Your task to perform on an android device: Go to Yahoo.com Image 0: 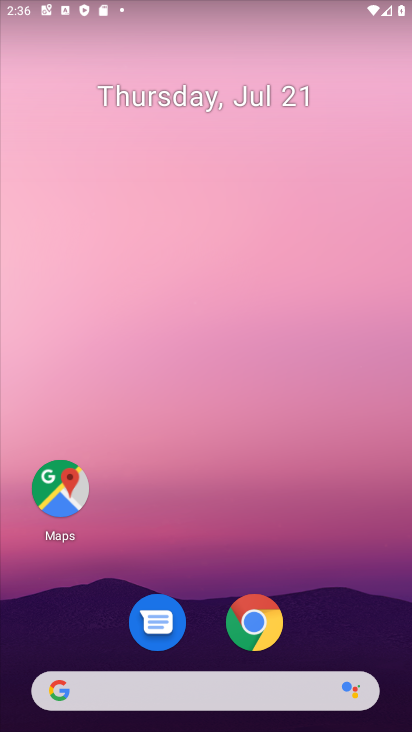
Step 0: click (244, 616)
Your task to perform on an android device: Go to Yahoo.com Image 1: 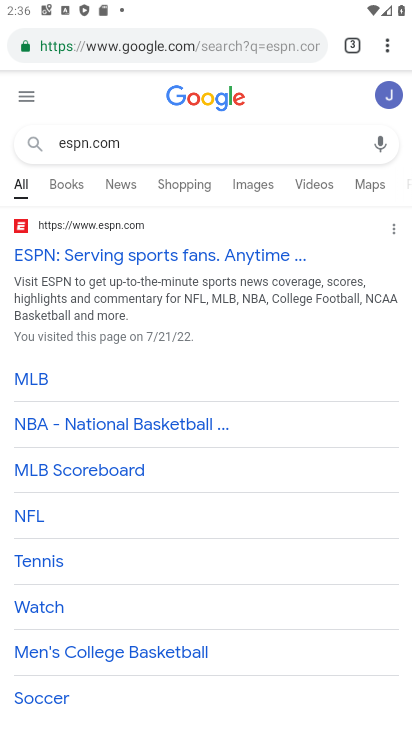
Step 1: click (227, 58)
Your task to perform on an android device: Go to Yahoo.com Image 2: 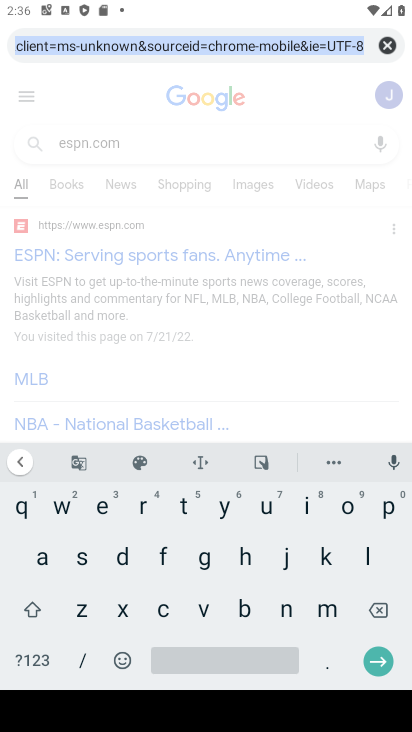
Step 2: click (386, 49)
Your task to perform on an android device: Go to Yahoo.com Image 3: 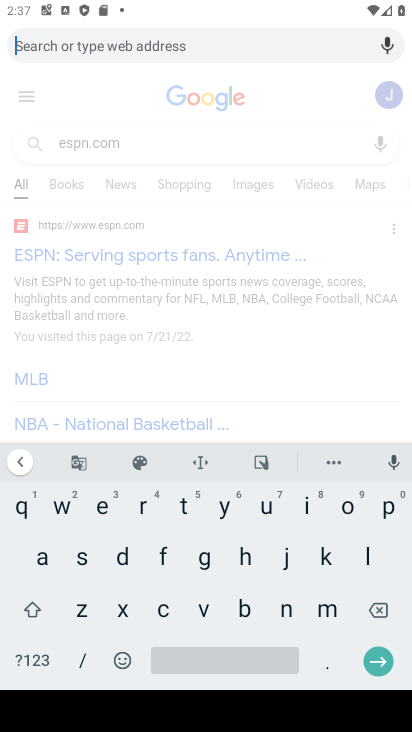
Step 3: click (226, 509)
Your task to perform on an android device: Go to Yahoo.com Image 4: 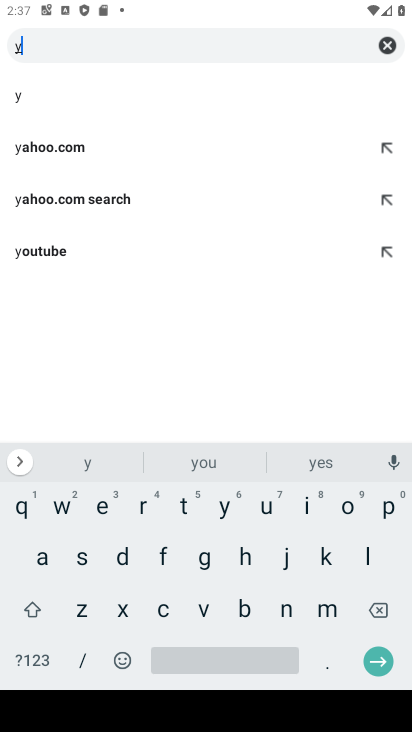
Step 4: click (92, 137)
Your task to perform on an android device: Go to Yahoo.com Image 5: 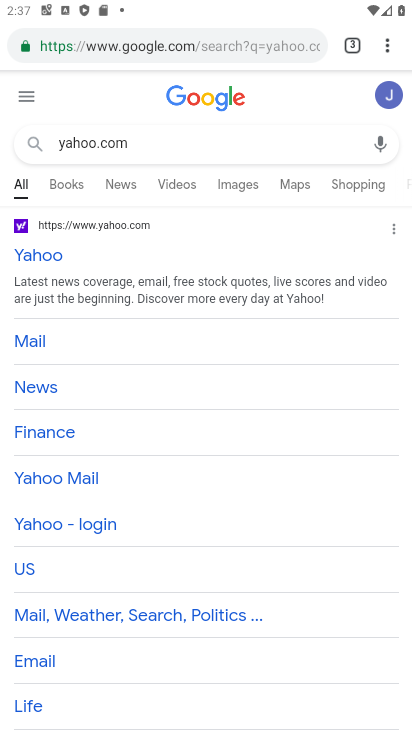
Step 5: click (37, 252)
Your task to perform on an android device: Go to Yahoo.com Image 6: 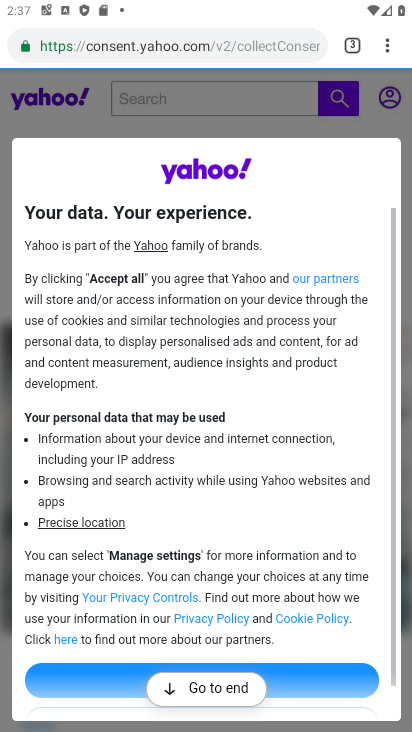
Step 6: drag from (292, 616) to (310, 433)
Your task to perform on an android device: Go to Yahoo.com Image 7: 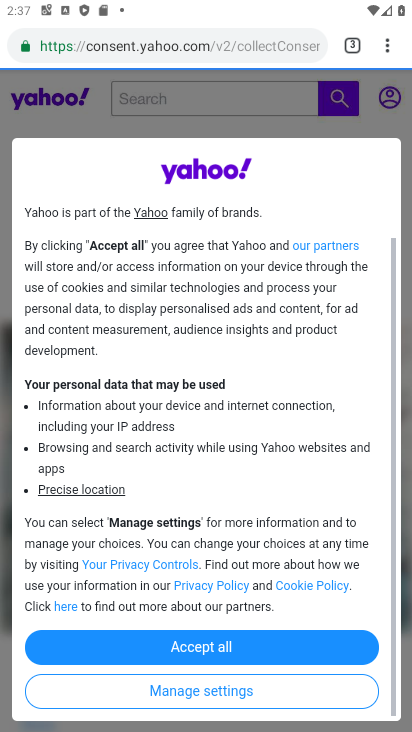
Step 7: click (209, 644)
Your task to perform on an android device: Go to Yahoo.com Image 8: 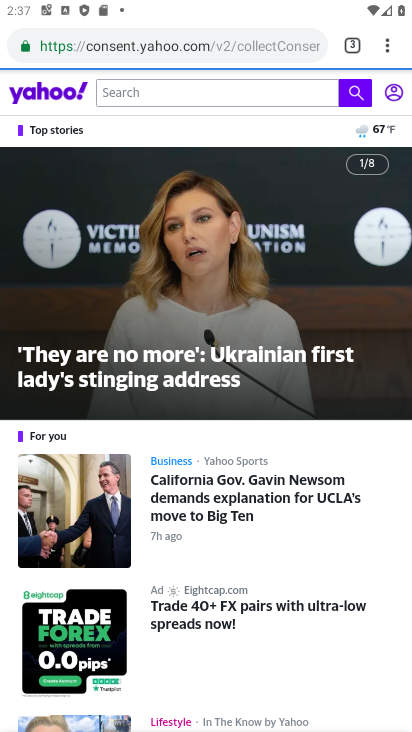
Step 8: task complete